Your task to perform on an android device: How do I get to the nearest Target? Image 0: 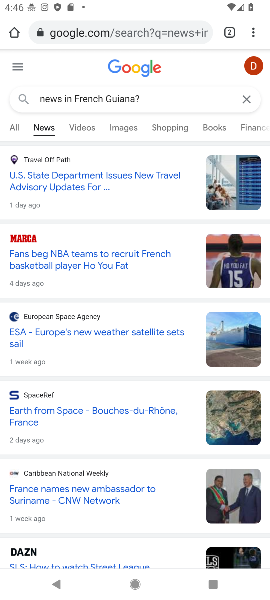
Step 0: click (152, 27)
Your task to perform on an android device: How do I get to the nearest Target? Image 1: 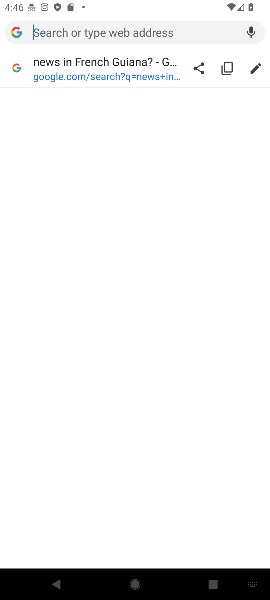
Step 1: type "How do I get to the nearest Target?"
Your task to perform on an android device: How do I get to the nearest Target? Image 2: 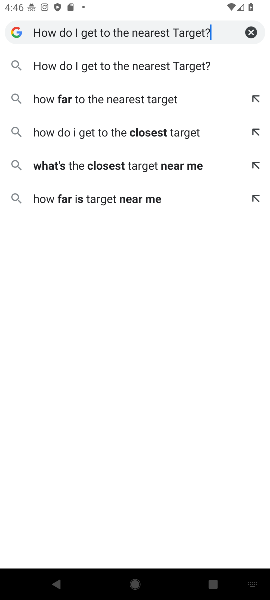
Step 2: click (83, 67)
Your task to perform on an android device: How do I get to the nearest Target? Image 3: 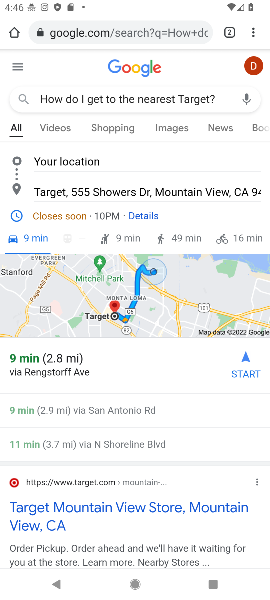
Step 3: task complete